Your task to perform on an android device: Open Amazon Image 0: 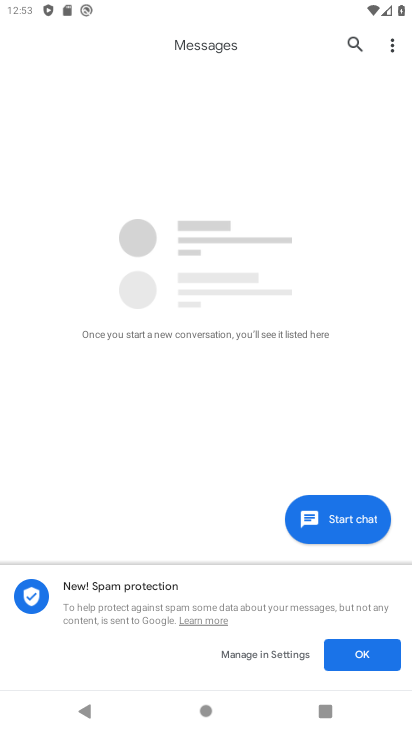
Step 0: press home button
Your task to perform on an android device: Open Amazon Image 1: 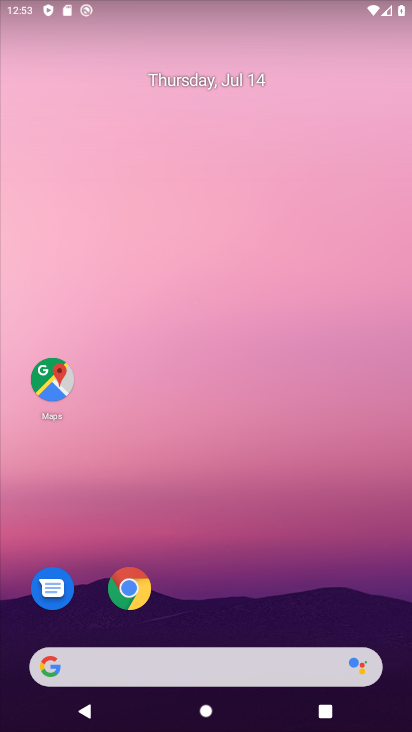
Step 1: click (115, 567)
Your task to perform on an android device: Open Amazon Image 2: 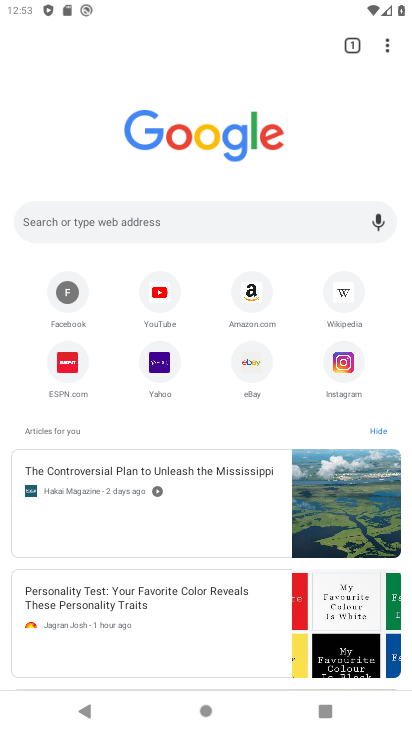
Step 2: click (244, 298)
Your task to perform on an android device: Open Amazon Image 3: 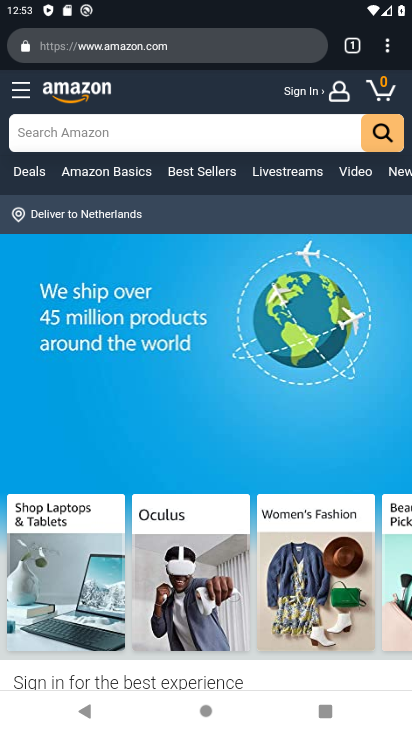
Step 3: task complete